Your task to perform on an android device: Open CNN.com Image 0: 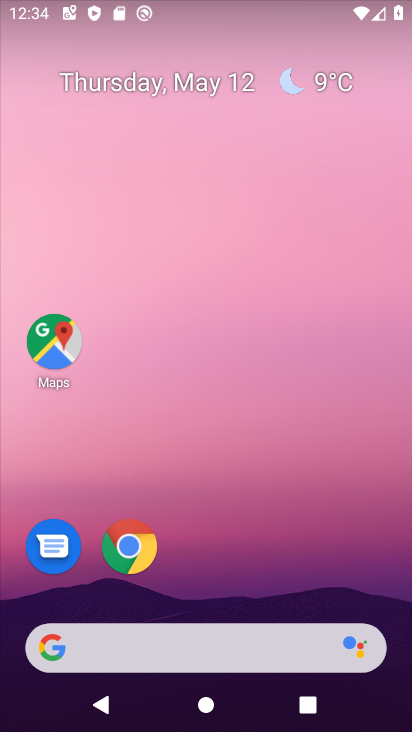
Step 0: click (124, 554)
Your task to perform on an android device: Open CNN.com Image 1: 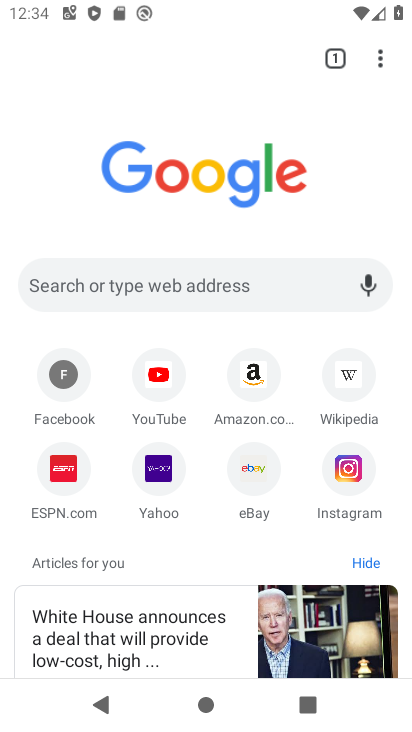
Step 1: click (120, 277)
Your task to perform on an android device: Open CNN.com Image 2: 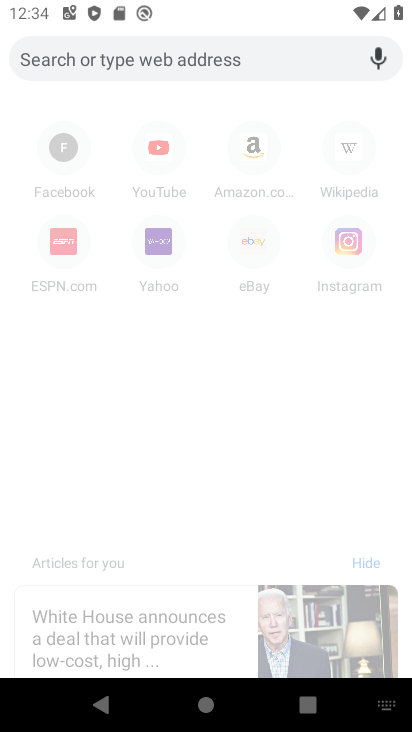
Step 2: type "CNN.com"
Your task to perform on an android device: Open CNN.com Image 3: 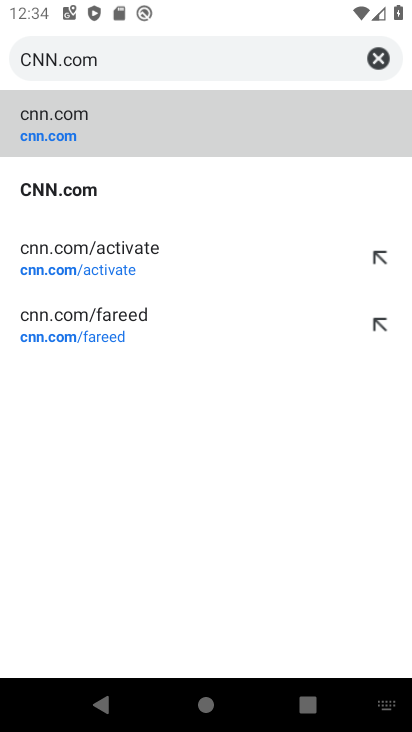
Step 3: click (74, 131)
Your task to perform on an android device: Open CNN.com Image 4: 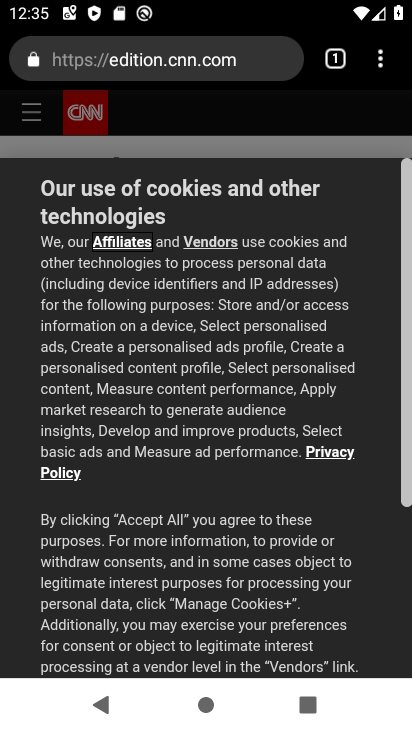
Step 4: task complete